Your task to perform on an android device: turn vacation reply on in the gmail app Image 0: 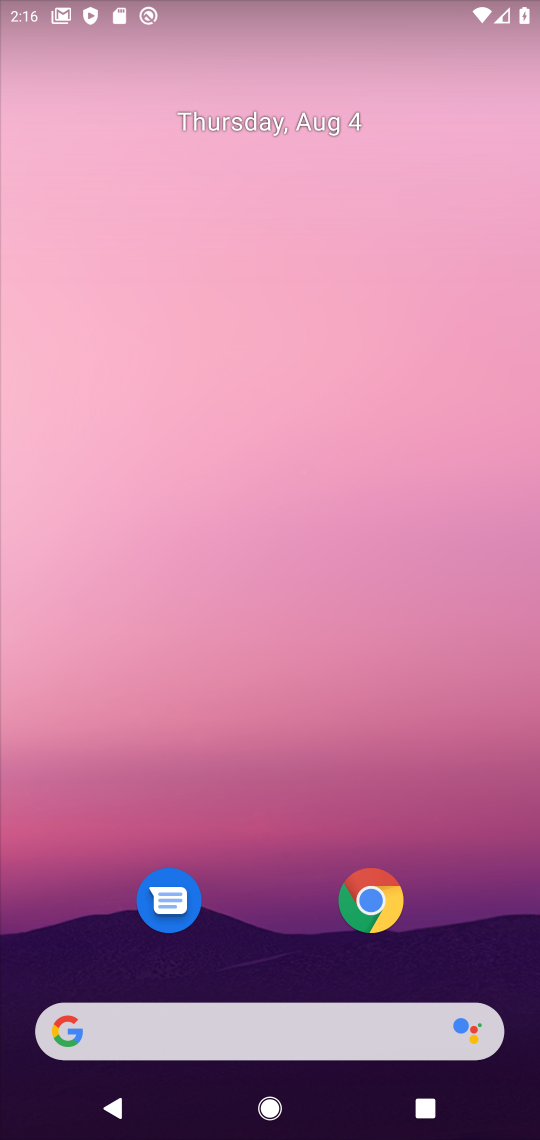
Step 0: drag from (493, 886) to (363, 199)
Your task to perform on an android device: turn vacation reply on in the gmail app Image 1: 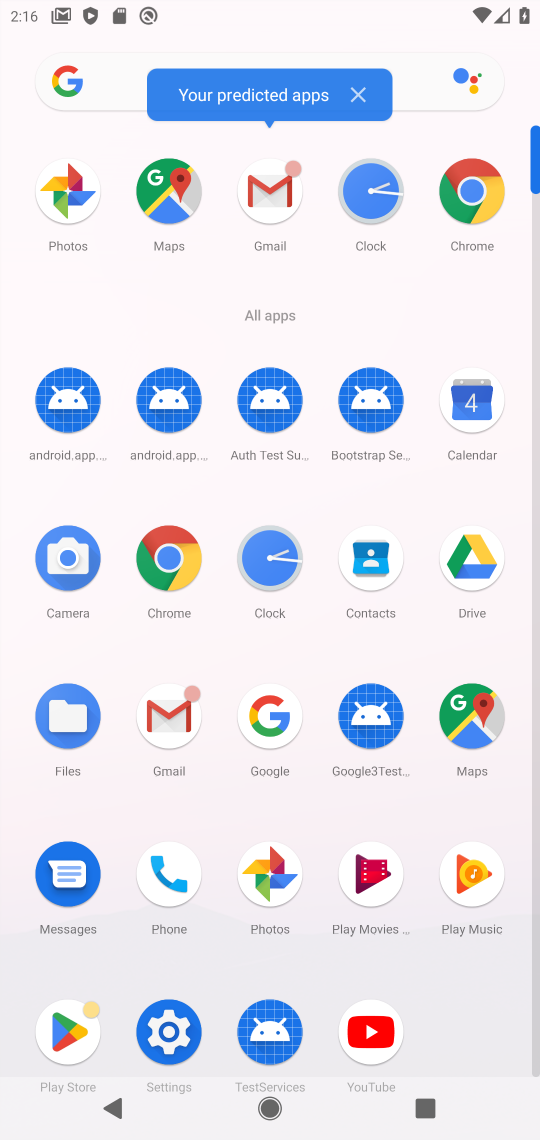
Step 1: click (175, 731)
Your task to perform on an android device: turn vacation reply on in the gmail app Image 2: 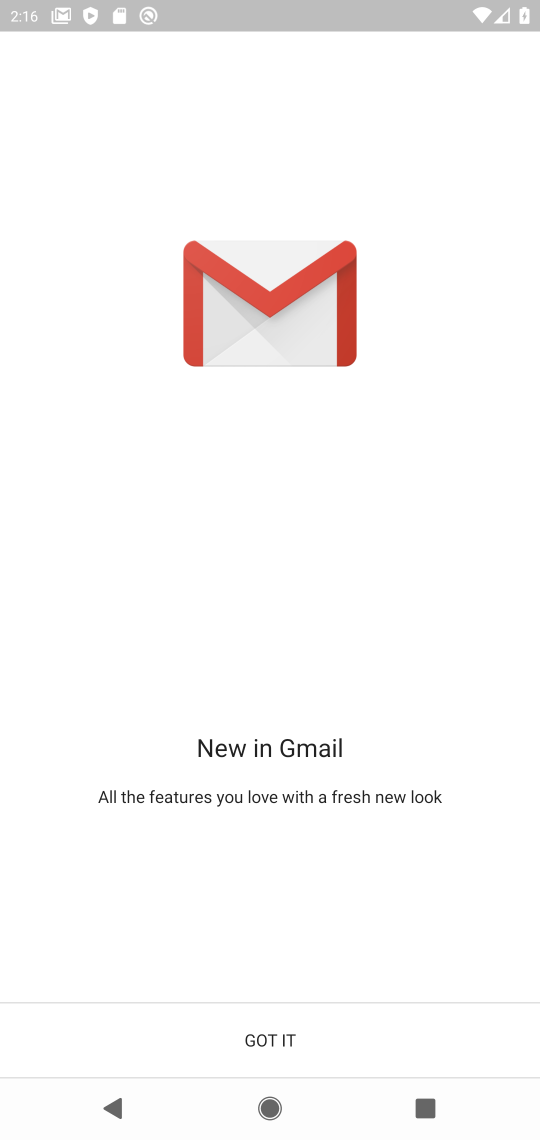
Step 2: click (281, 1038)
Your task to perform on an android device: turn vacation reply on in the gmail app Image 3: 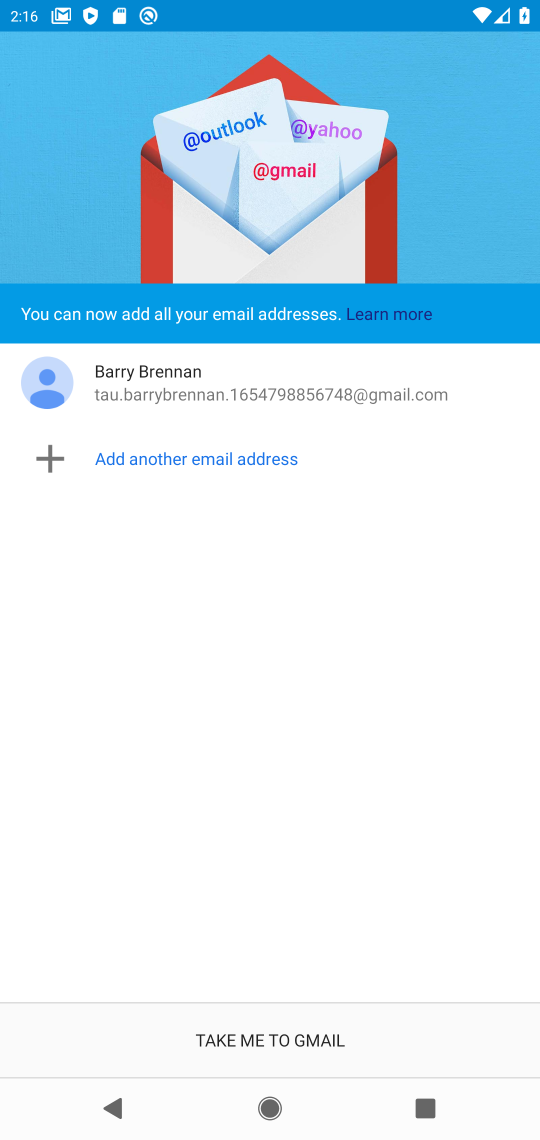
Step 3: click (281, 1038)
Your task to perform on an android device: turn vacation reply on in the gmail app Image 4: 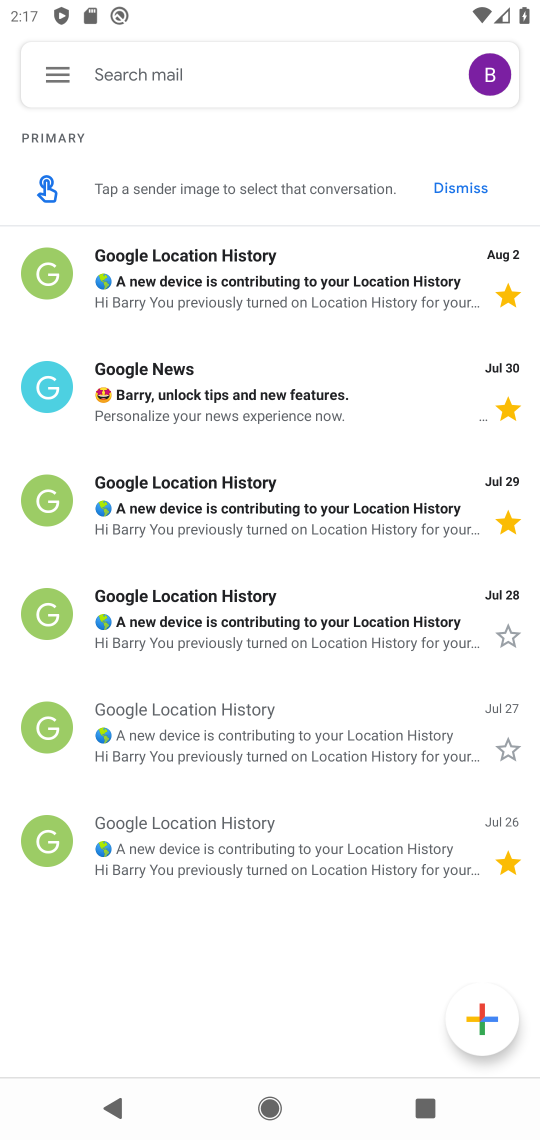
Step 4: click (65, 73)
Your task to perform on an android device: turn vacation reply on in the gmail app Image 5: 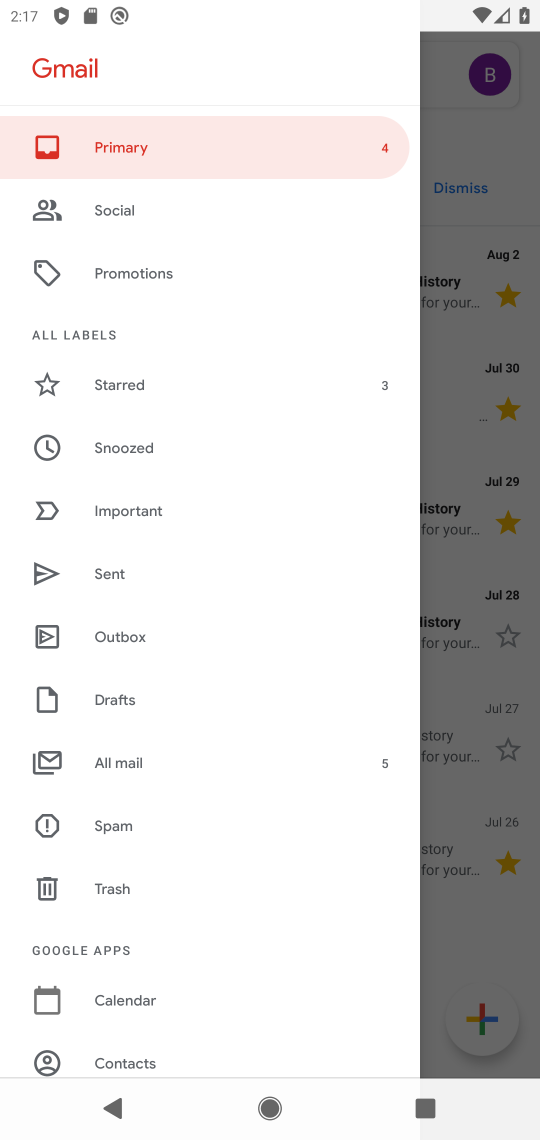
Step 5: drag from (182, 954) to (119, 507)
Your task to perform on an android device: turn vacation reply on in the gmail app Image 6: 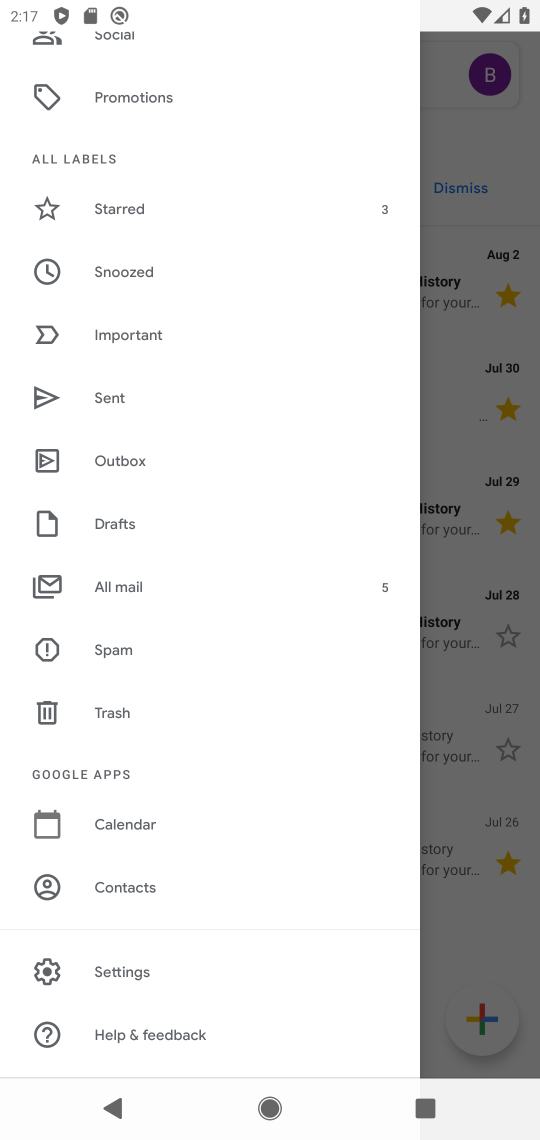
Step 6: click (146, 984)
Your task to perform on an android device: turn vacation reply on in the gmail app Image 7: 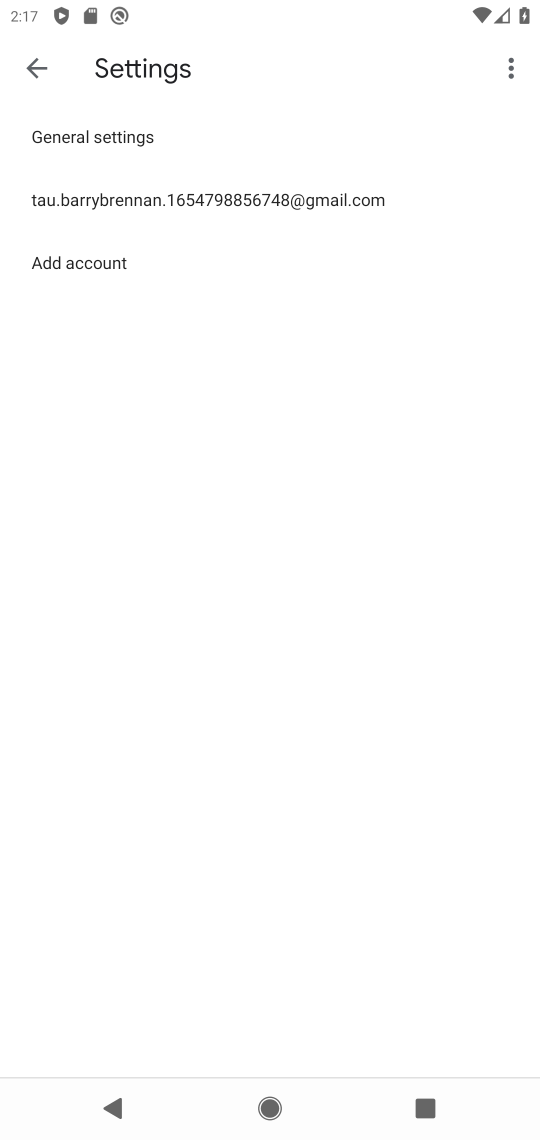
Step 7: click (268, 214)
Your task to perform on an android device: turn vacation reply on in the gmail app Image 8: 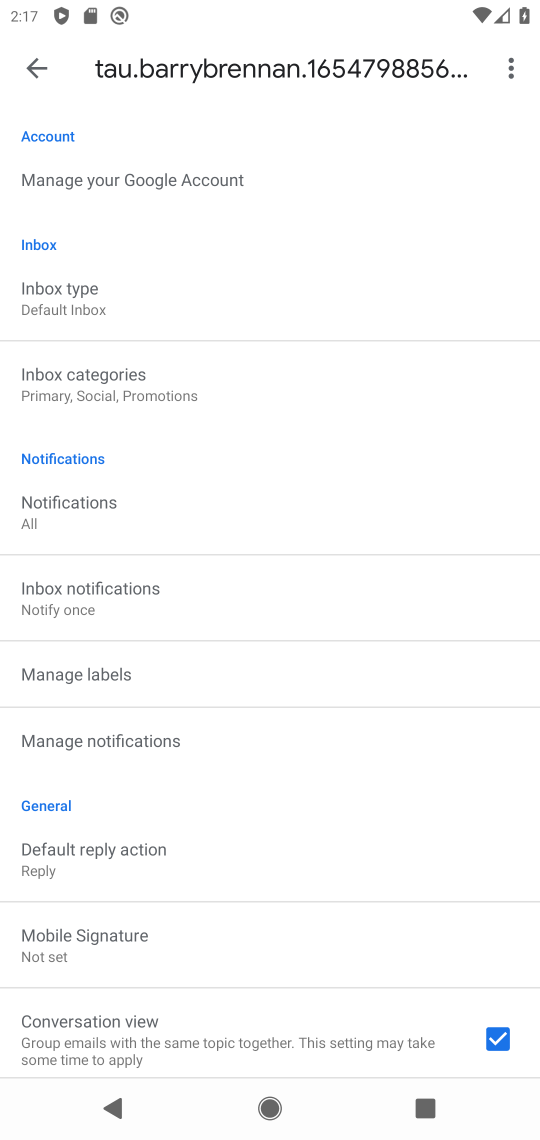
Step 8: drag from (233, 730) to (167, 118)
Your task to perform on an android device: turn vacation reply on in the gmail app Image 9: 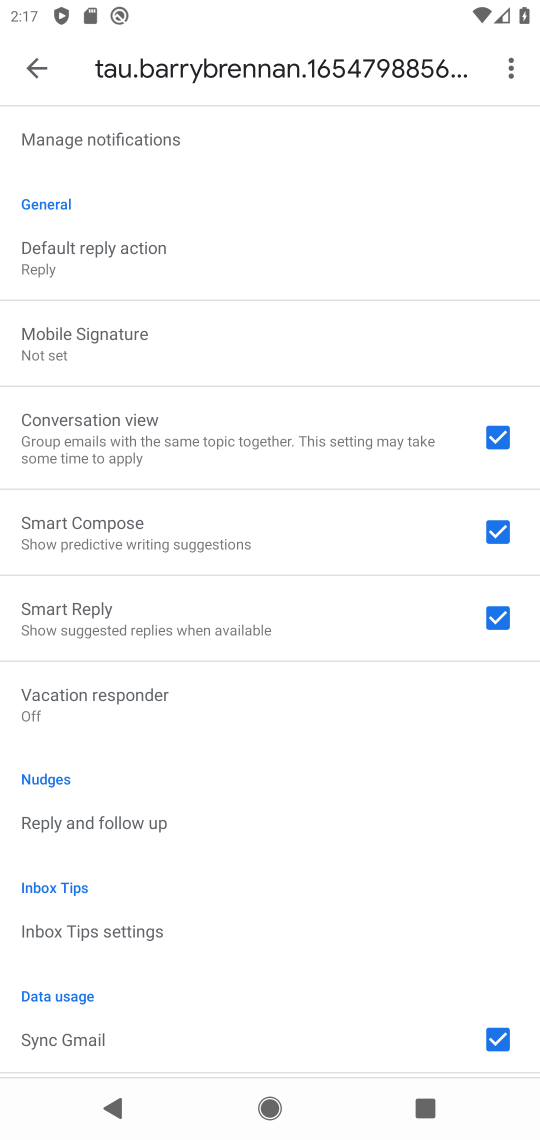
Step 9: click (143, 712)
Your task to perform on an android device: turn vacation reply on in the gmail app Image 10: 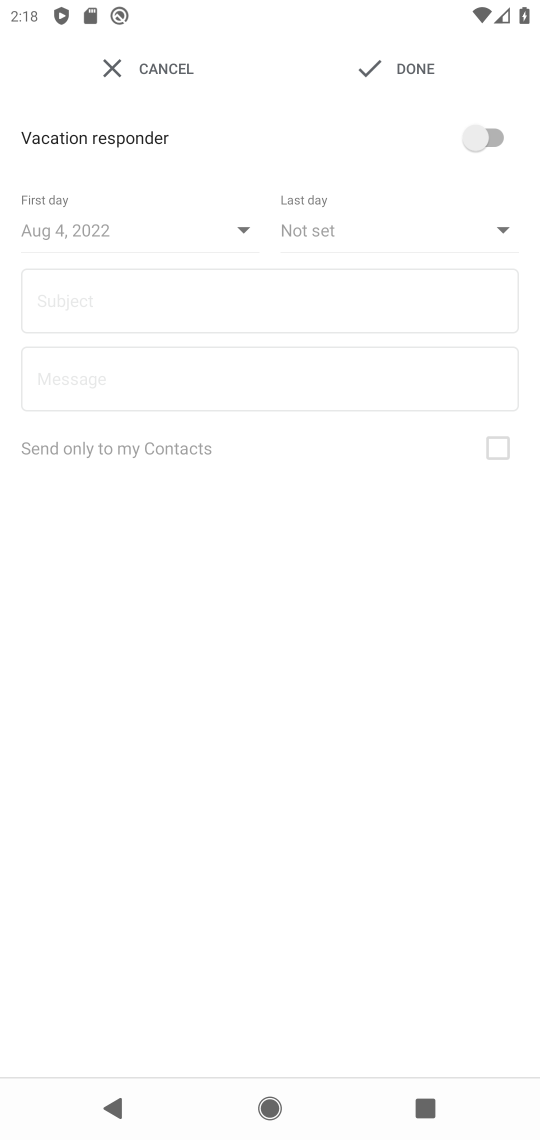
Step 10: click (494, 134)
Your task to perform on an android device: turn vacation reply on in the gmail app Image 11: 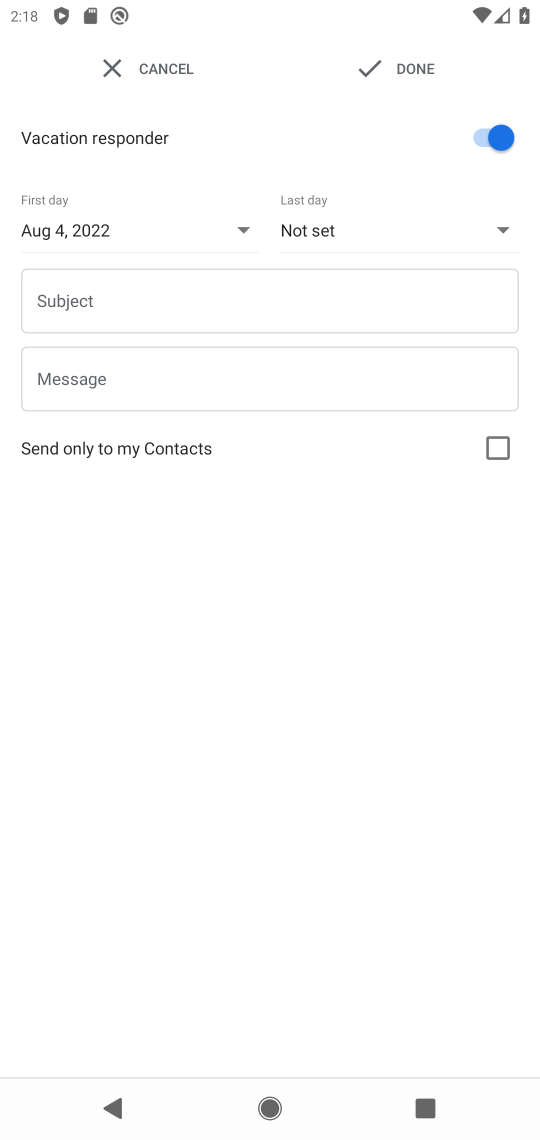
Step 11: click (295, 286)
Your task to perform on an android device: turn vacation reply on in the gmail app Image 12: 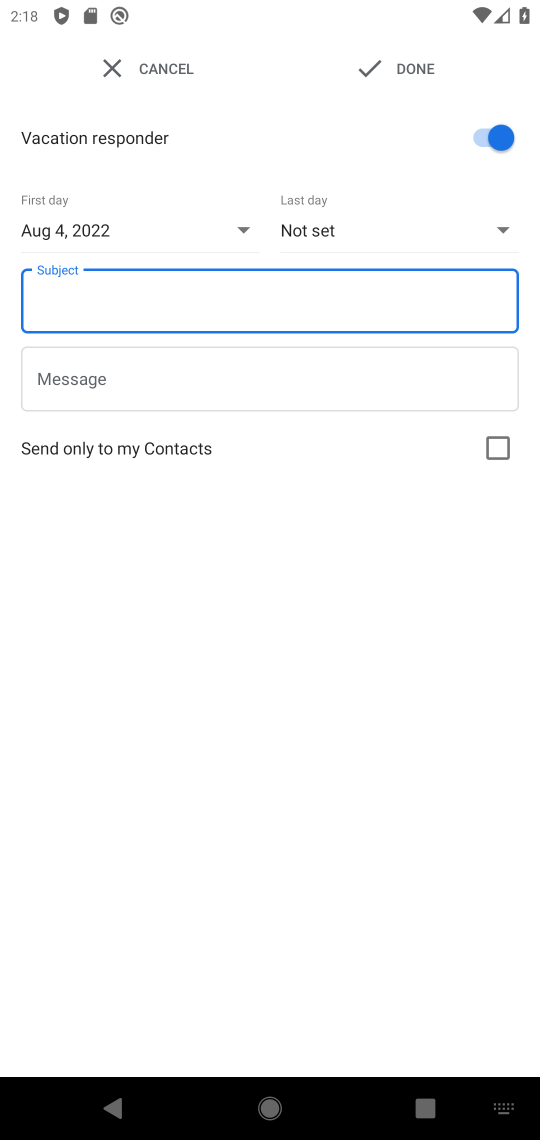
Step 12: type "fdfd"
Your task to perform on an android device: turn vacation reply on in the gmail app Image 13: 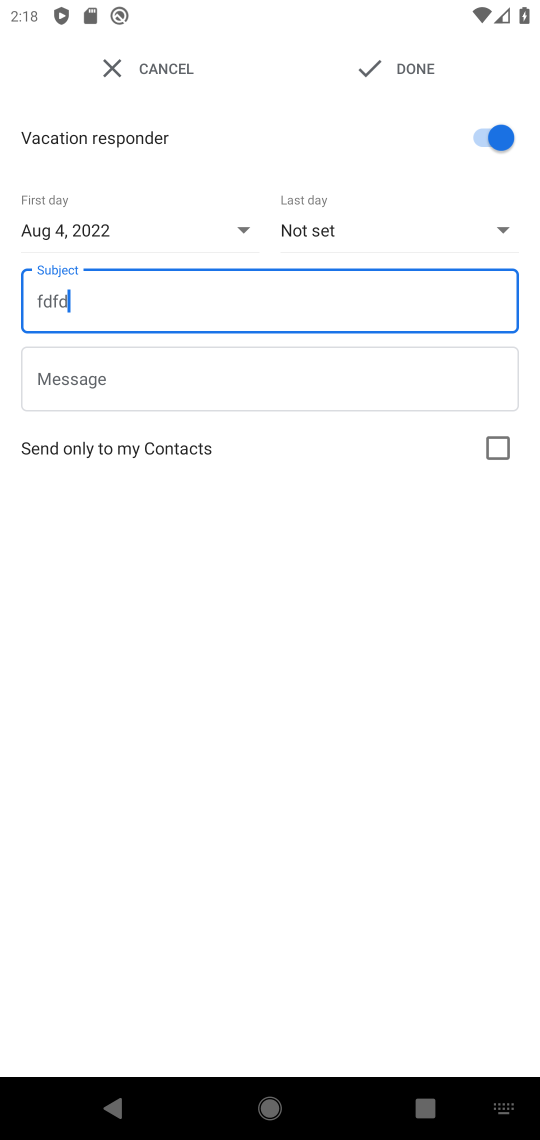
Step 13: click (432, 57)
Your task to perform on an android device: turn vacation reply on in the gmail app Image 14: 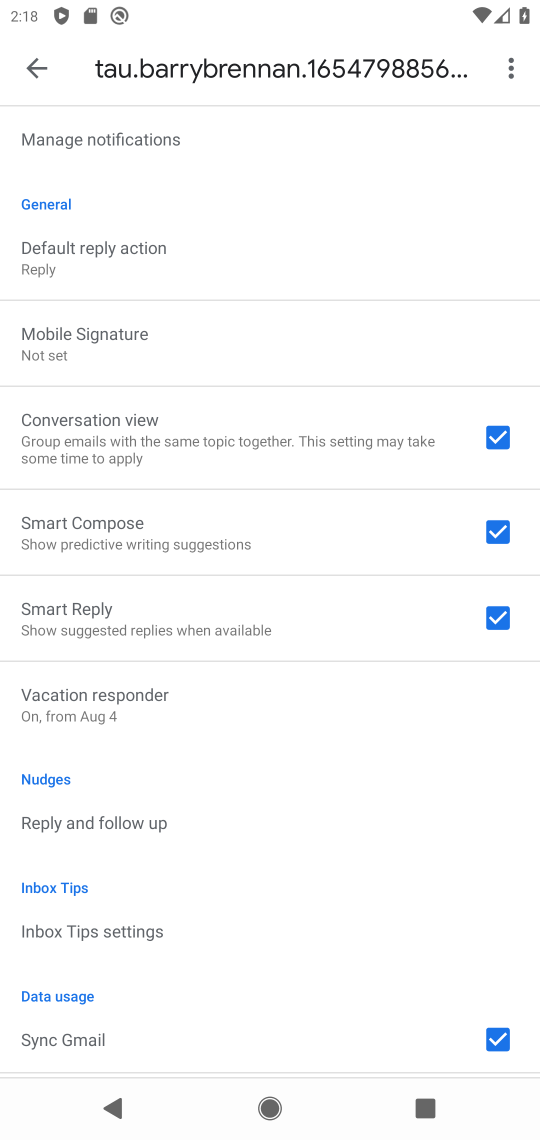
Step 14: task complete